Your task to perform on an android device: Go to Wikipedia Image 0: 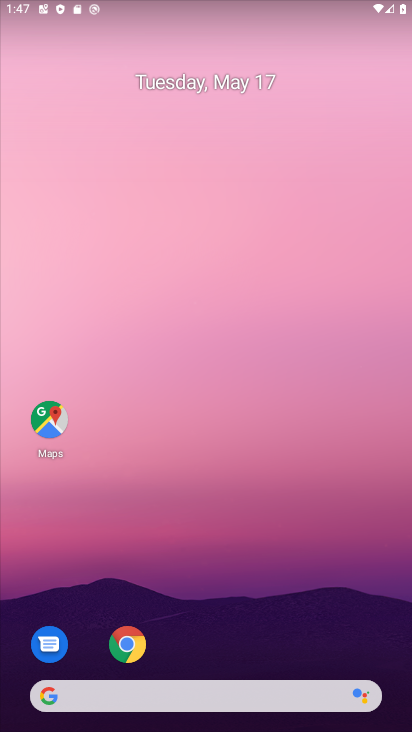
Step 0: click (128, 643)
Your task to perform on an android device: Go to Wikipedia Image 1: 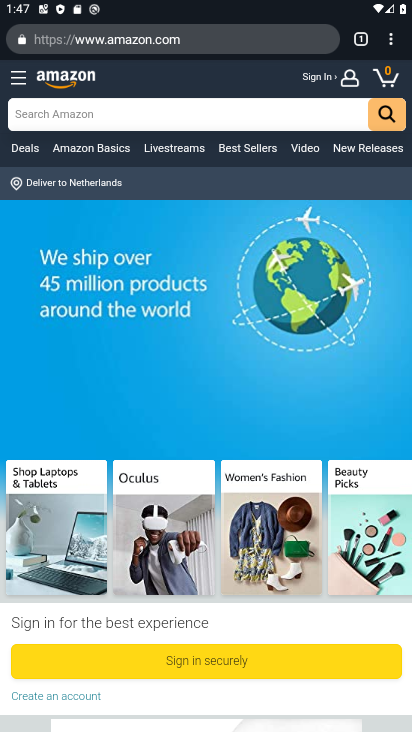
Step 1: click (395, 43)
Your task to perform on an android device: Go to Wikipedia Image 2: 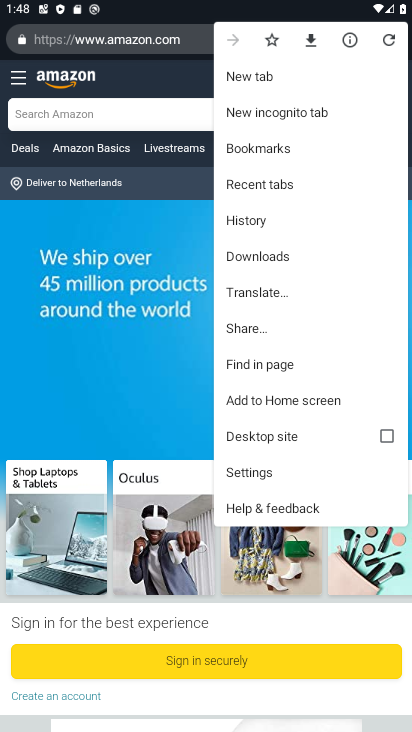
Step 2: click (254, 80)
Your task to perform on an android device: Go to Wikipedia Image 3: 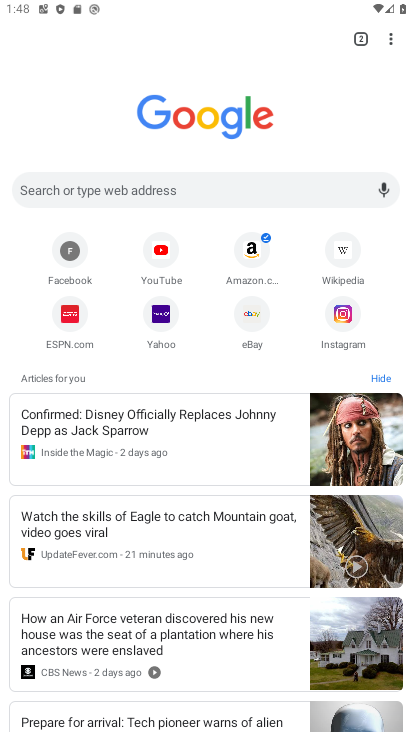
Step 3: click (351, 263)
Your task to perform on an android device: Go to Wikipedia Image 4: 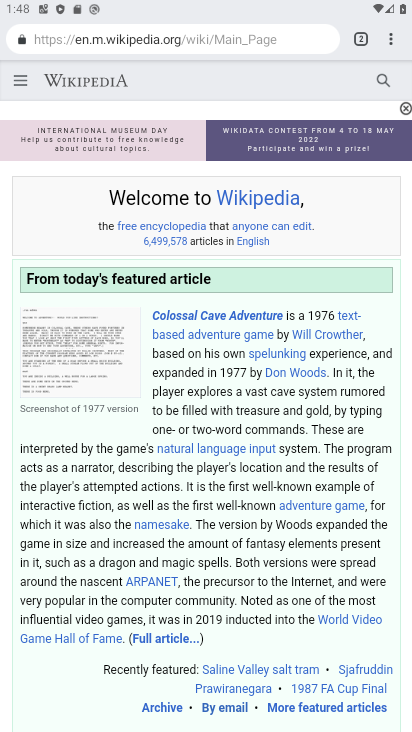
Step 4: task complete